Your task to perform on an android device: turn on data saver in the chrome app Image 0: 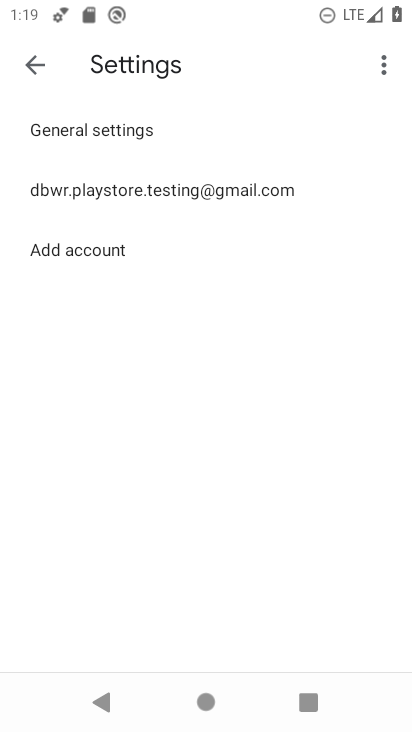
Step 0: press home button
Your task to perform on an android device: turn on data saver in the chrome app Image 1: 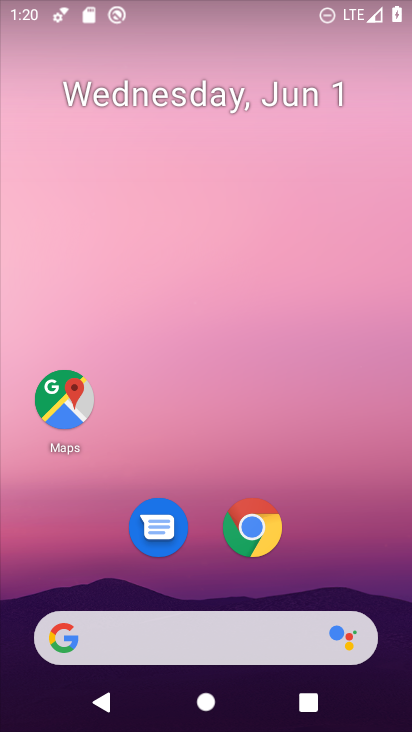
Step 1: click (247, 524)
Your task to perform on an android device: turn on data saver in the chrome app Image 2: 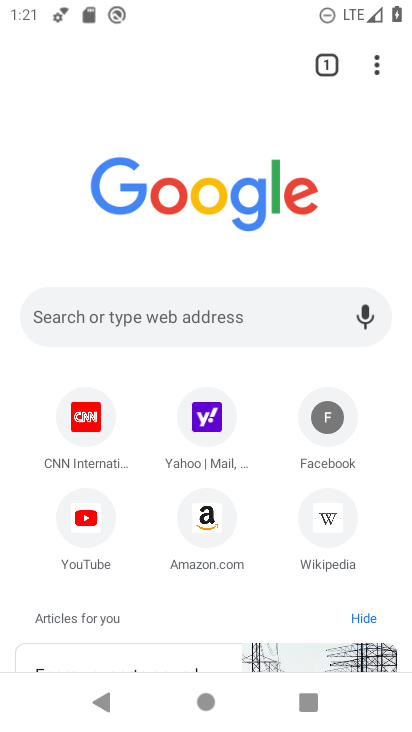
Step 2: click (380, 55)
Your task to perform on an android device: turn on data saver in the chrome app Image 3: 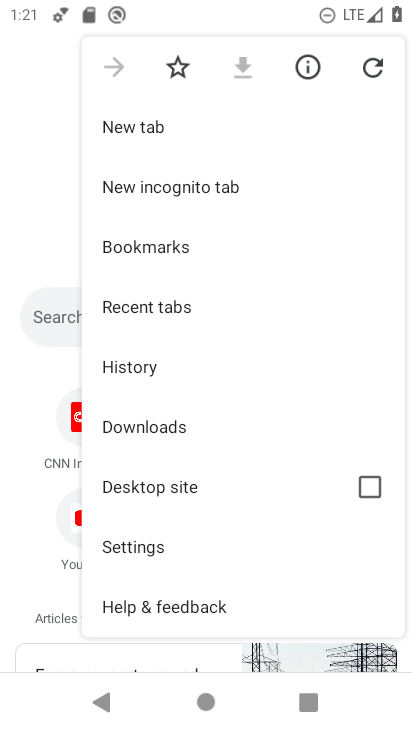
Step 3: click (160, 545)
Your task to perform on an android device: turn on data saver in the chrome app Image 4: 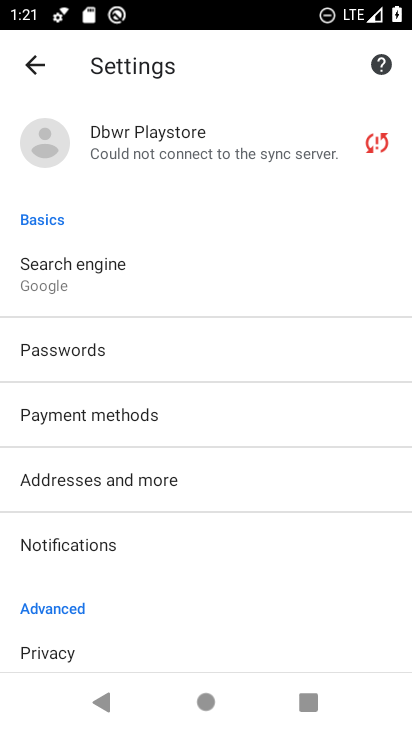
Step 4: drag from (213, 521) to (154, 122)
Your task to perform on an android device: turn on data saver in the chrome app Image 5: 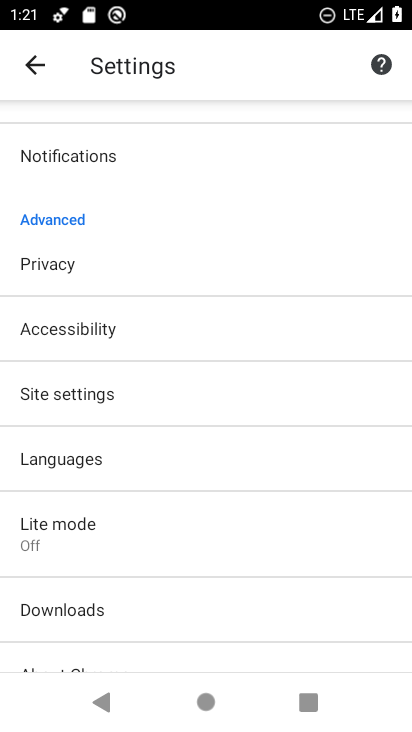
Step 5: click (101, 531)
Your task to perform on an android device: turn on data saver in the chrome app Image 6: 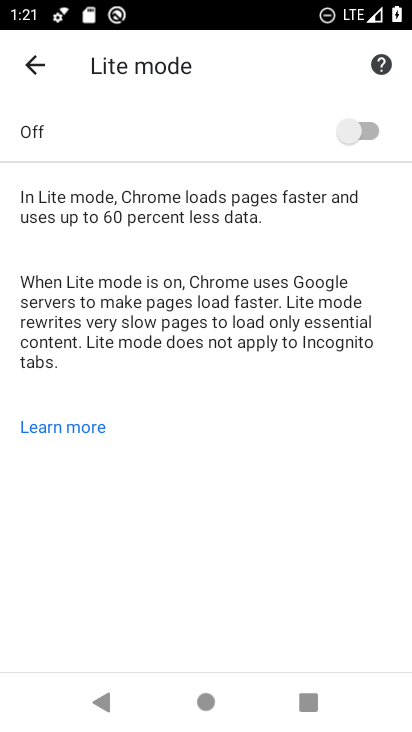
Step 6: click (358, 129)
Your task to perform on an android device: turn on data saver in the chrome app Image 7: 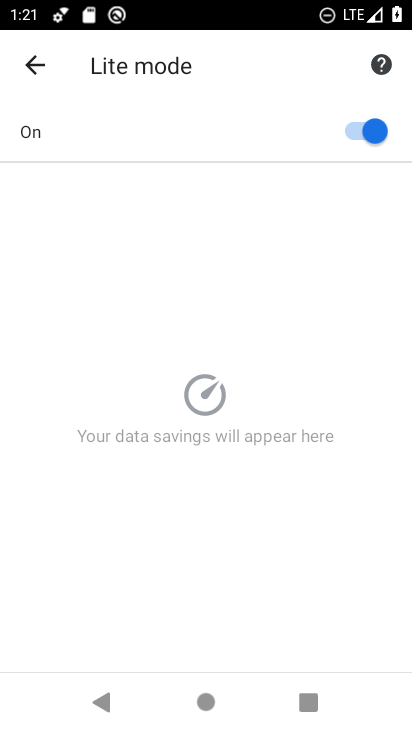
Step 7: task complete